Your task to perform on an android device: toggle location history Image 0: 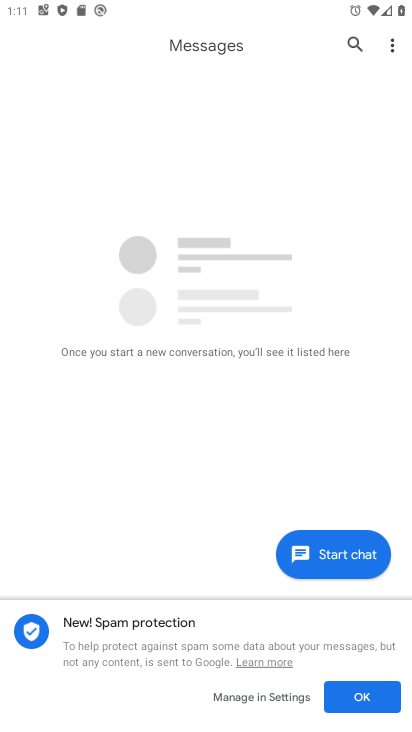
Step 0: press home button
Your task to perform on an android device: toggle location history Image 1: 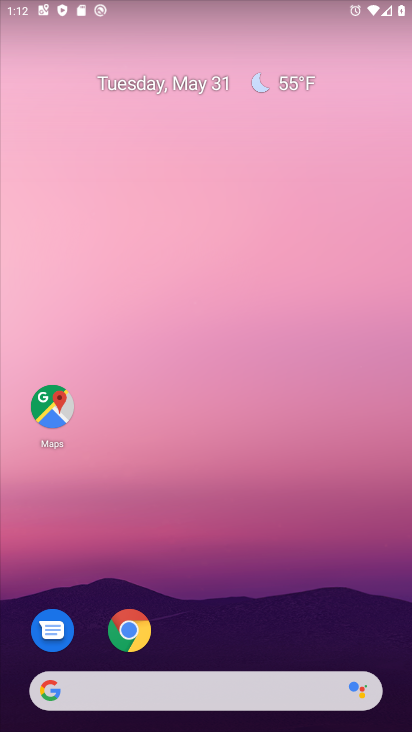
Step 1: drag from (206, 648) to (208, 351)
Your task to perform on an android device: toggle location history Image 2: 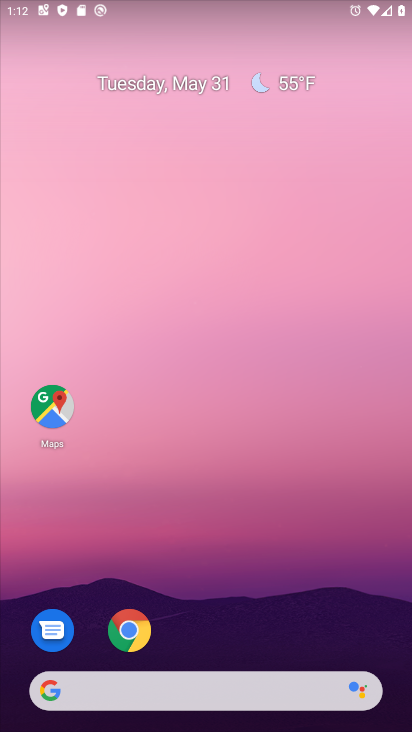
Step 2: drag from (217, 658) to (178, 265)
Your task to perform on an android device: toggle location history Image 3: 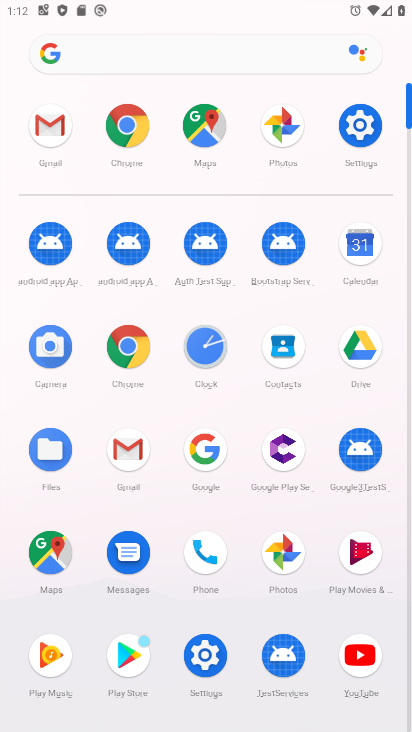
Step 3: click (350, 125)
Your task to perform on an android device: toggle location history Image 4: 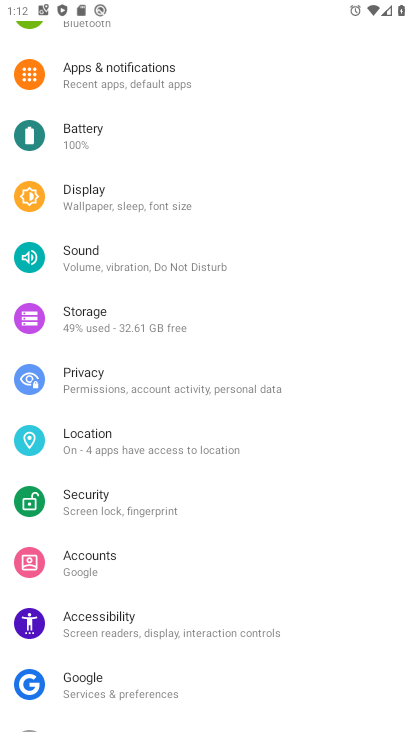
Step 4: click (77, 433)
Your task to perform on an android device: toggle location history Image 5: 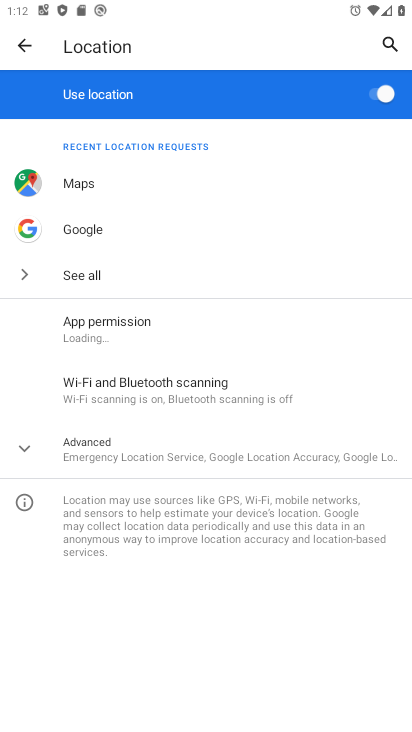
Step 5: click (89, 443)
Your task to perform on an android device: toggle location history Image 6: 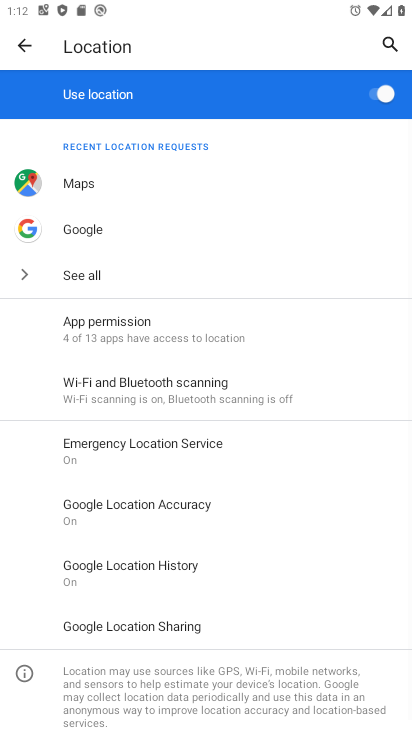
Step 6: click (142, 564)
Your task to perform on an android device: toggle location history Image 7: 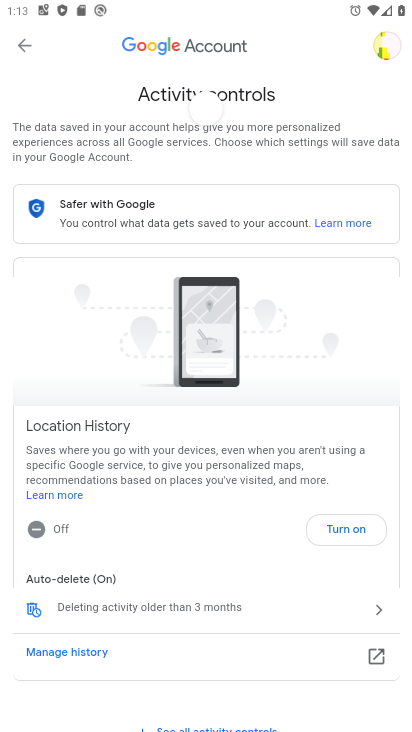
Step 7: click (342, 526)
Your task to perform on an android device: toggle location history Image 8: 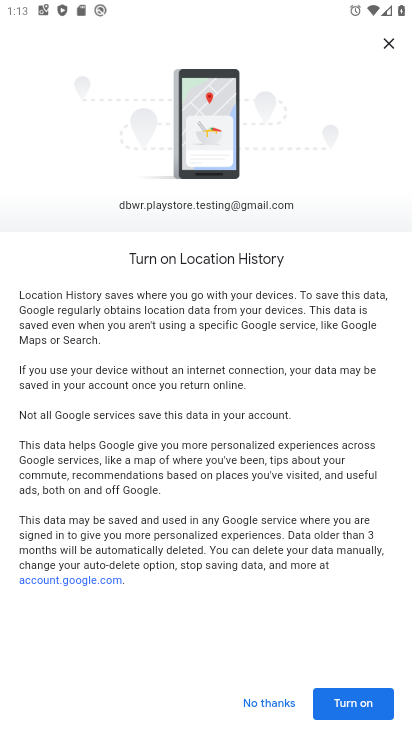
Step 8: click (354, 708)
Your task to perform on an android device: toggle location history Image 9: 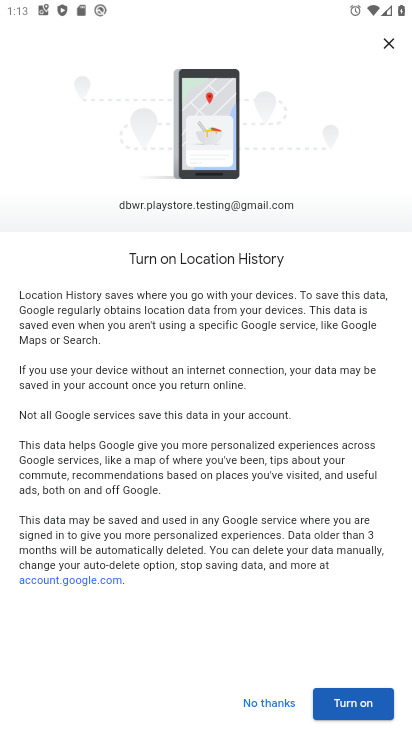
Step 9: click (362, 707)
Your task to perform on an android device: toggle location history Image 10: 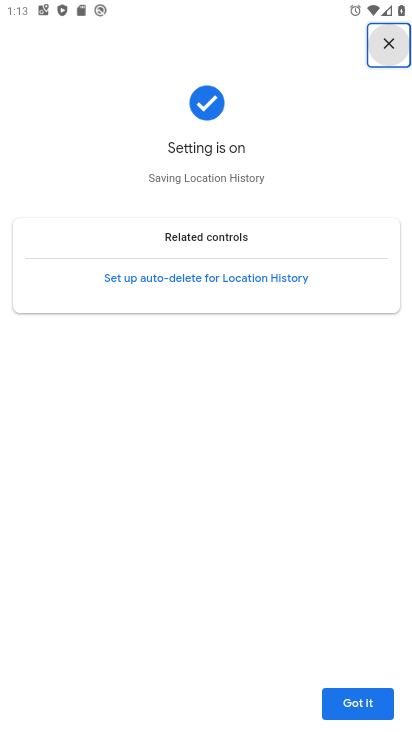
Step 10: click (362, 699)
Your task to perform on an android device: toggle location history Image 11: 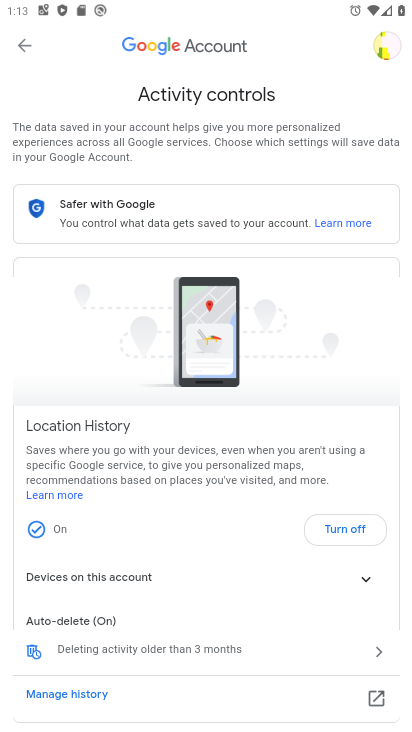
Step 11: task complete